Your task to perform on an android device: Clear all items from cart on walmart. Add razer naga to the cart on walmart, then select checkout. Image 0: 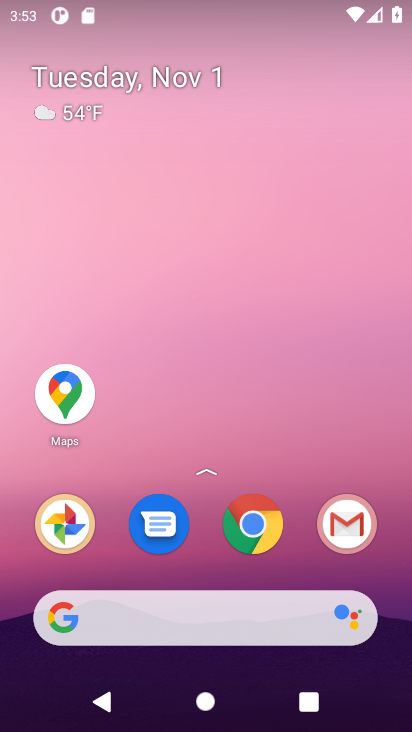
Step 0: click (254, 525)
Your task to perform on an android device: Clear all items from cart on walmart. Add razer naga to the cart on walmart, then select checkout. Image 1: 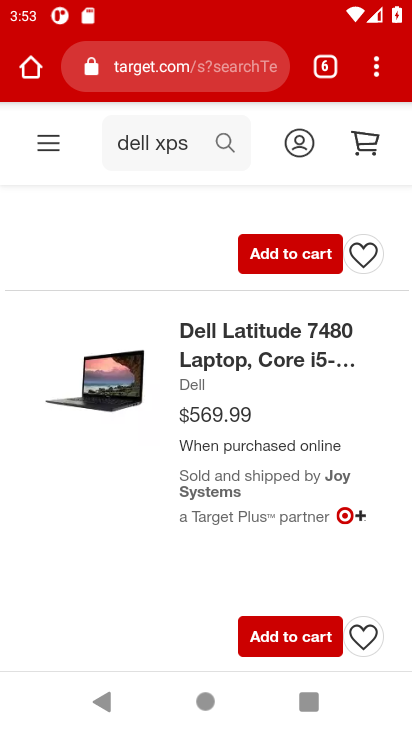
Step 1: click (228, 44)
Your task to perform on an android device: Clear all items from cart on walmart. Add razer naga to the cart on walmart, then select checkout. Image 2: 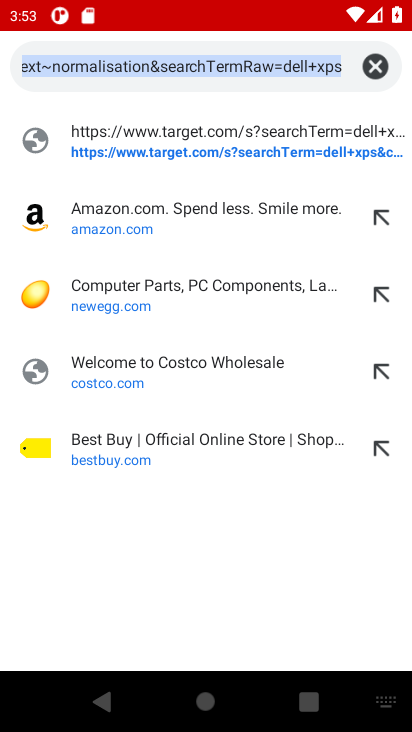
Step 2: click (372, 63)
Your task to perform on an android device: Clear all items from cart on walmart. Add razer naga to the cart on walmart, then select checkout. Image 3: 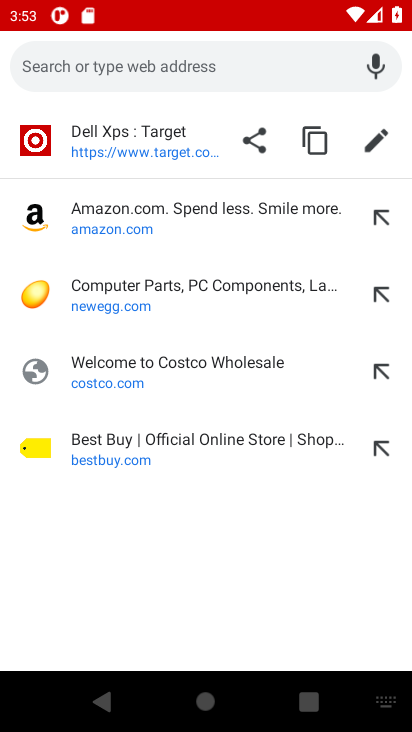
Step 3: type "walmart"
Your task to perform on an android device: Clear all items from cart on walmart. Add razer naga to the cart on walmart, then select checkout. Image 4: 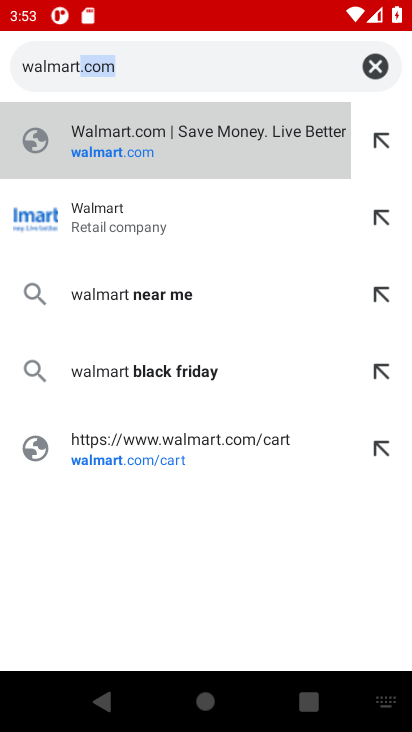
Step 4: click (94, 132)
Your task to perform on an android device: Clear all items from cart on walmart. Add razer naga to the cart on walmart, then select checkout. Image 5: 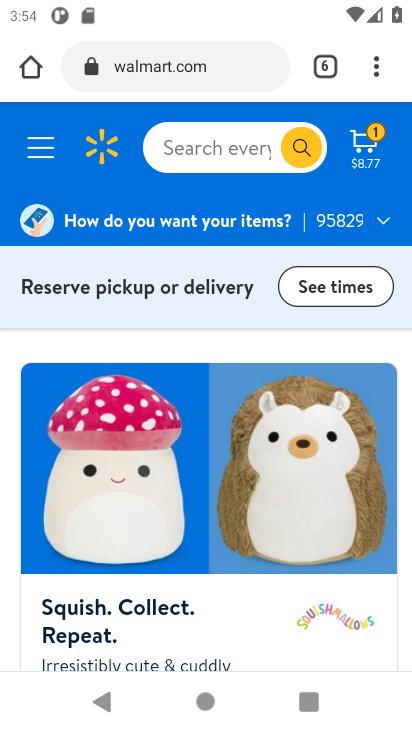
Step 5: click (365, 137)
Your task to perform on an android device: Clear all items from cart on walmart. Add razer naga to the cart on walmart, then select checkout. Image 6: 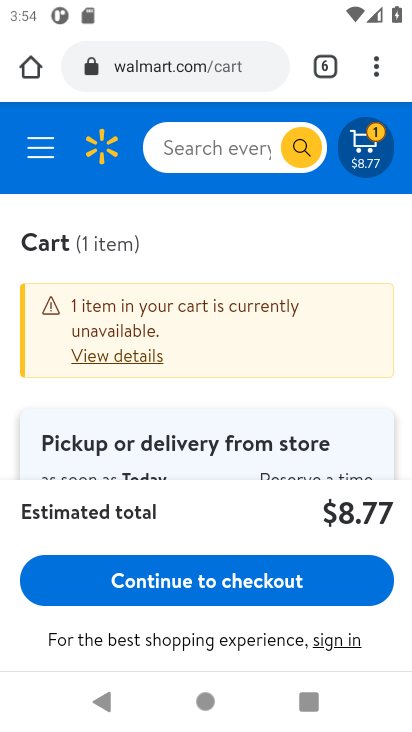
Step 6: drag from (289, 398) to (272, 112)
Your task to perform on an android device: Clear all items from cart on walmart. Add razer naga to the cart on walmart, then select checkout. Image 7: 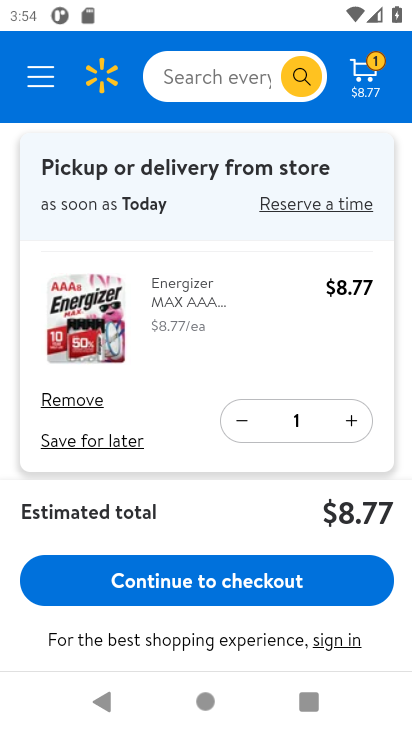
Step 7: click (54, 395)
Your task to perform on an android device: Clear all items from cart on walmart. Add razer naga to the cart on walmart, then select checkout. Image 8: 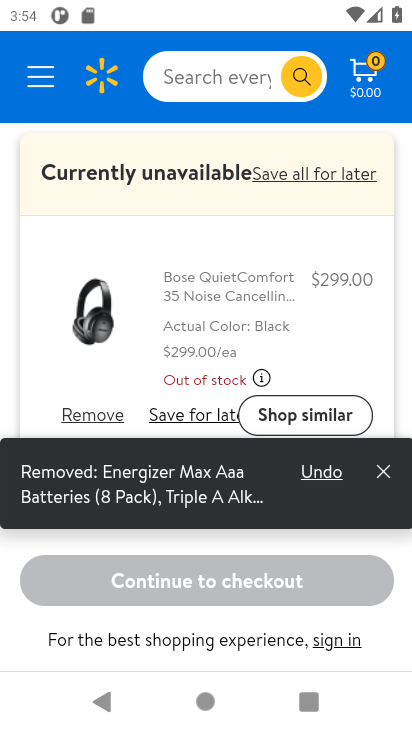
Step 8: click (87, 410)
Your task to perform on an android device: Clear all items from cart on walmart. Add razer naga to the cart on walmart, then select checkout. Image 9: 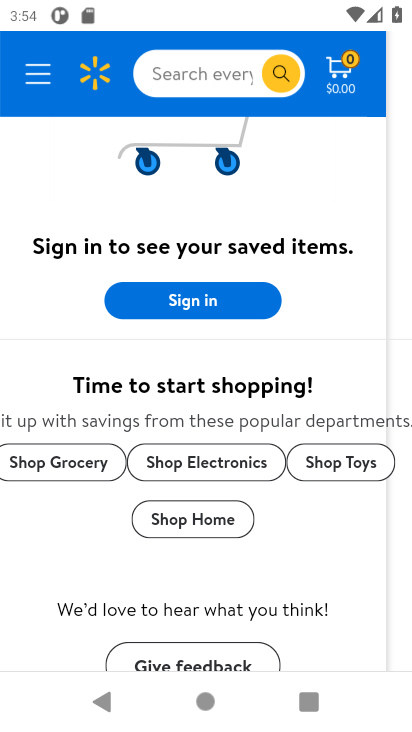
Step 9: click (181, 70)
Your task to perform on an android device: Clear all items from cart on walmart. Add razer naga to the cart on walmart, then select checkout. Image 10: 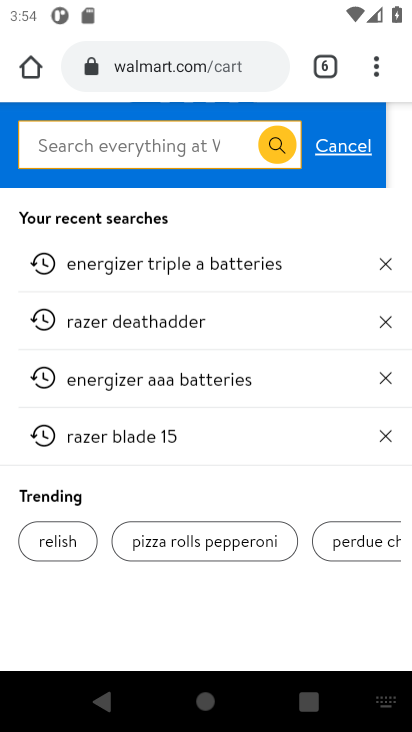
Step 10: type "razer naga"
Your task to perform on an android device: Clear all items from cart on walmart. Add razer naga to the cart on walmart, then select checkout. Image 11: 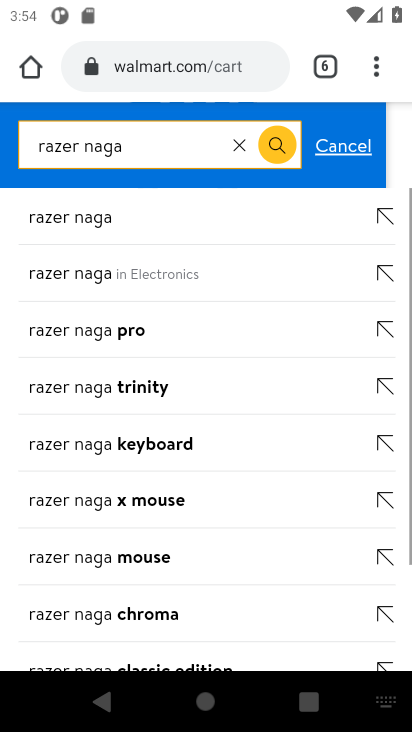
Step 11: click (58, 215)
Your task to perform on an android device: Clear all items from cart on walmart. Add razer naga to the cart on walmart, then select checkout. Image 12: 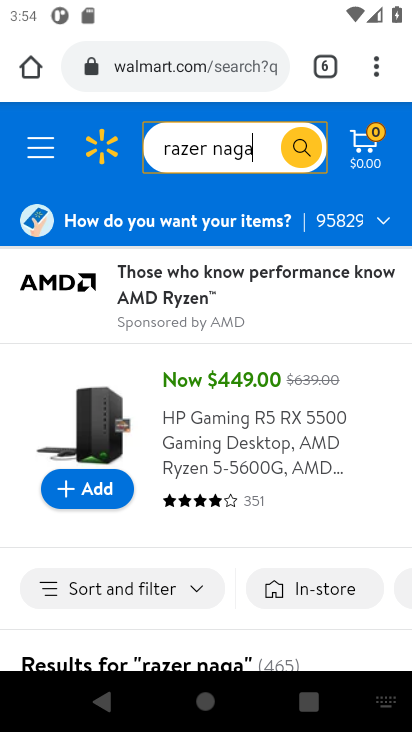
Step 12: drag from (235, 622) to (226, 301)
Your task to perform on an android device: Clear all items from cart on walmart. Add razer naga to the cart on walmart, then select checkout. Image 13: 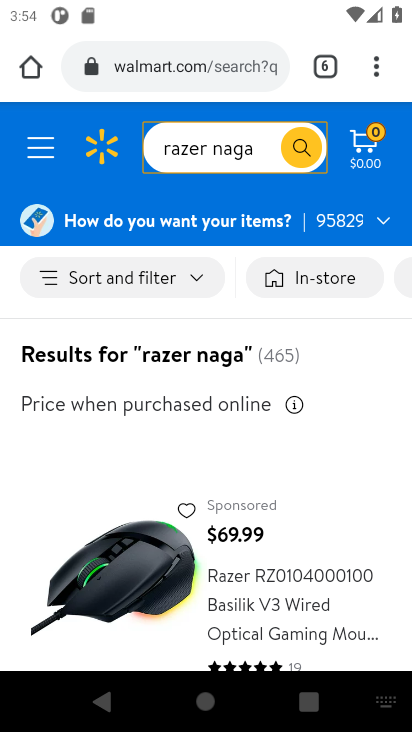
Step 13: drag from (219, 575) to (211, 271)
Your task to perform on an android device: Clear all items from cart on walmart. Add razer naga to the cart on walmart, then select checkout. Image 14: 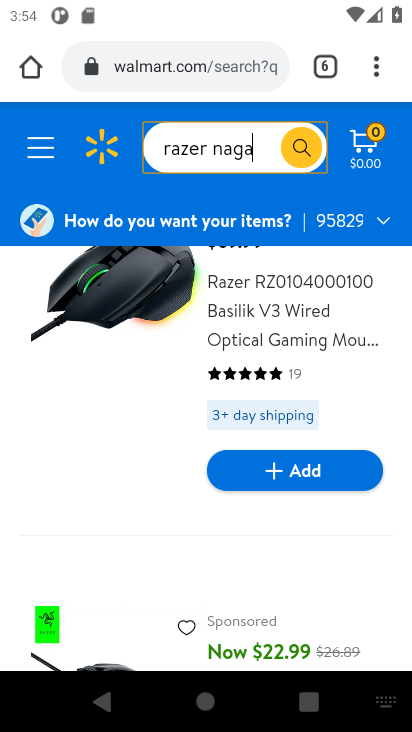
Step 14: drag from (209, 609) to (187, 284)
Your task to perform on an android device: Clear all items from cart on walmart. Add razer naga to the cart on walmart, then select checkout. Image 15: 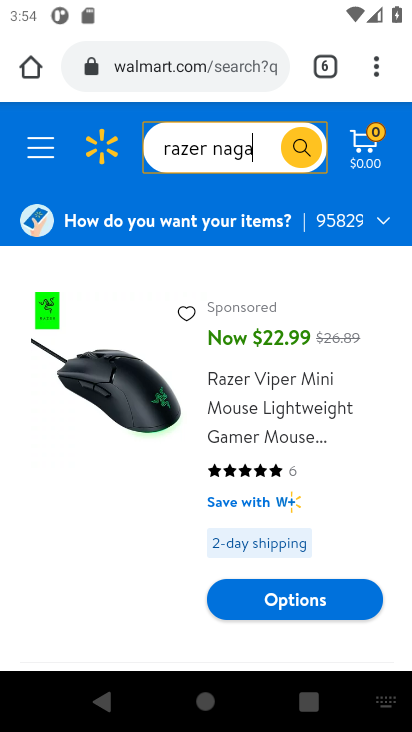
Step 15: drag from (189, 582) to (188, 313)
Your task to perform on an android device: Clear all items from cart on walmart. Add razer naga to the cart on walmart, then select checkout. Image 16: 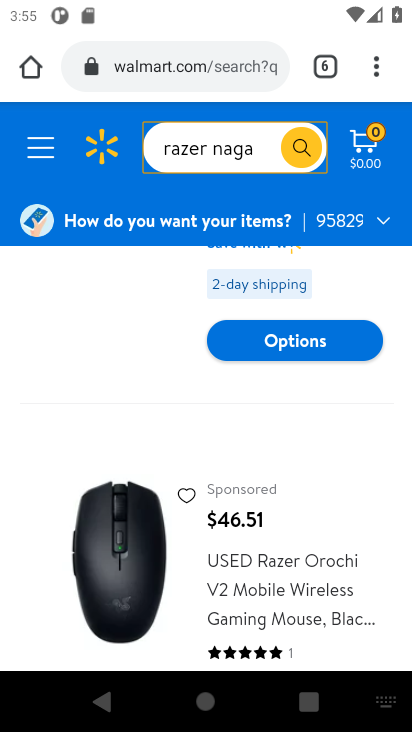
Step 16: drag from (202, 598) to (195, 292)
Your task to perform on an android device: Clear all items from cart on walmart. Add razer naga to the cart on walmart, then select checkout. Image 17: 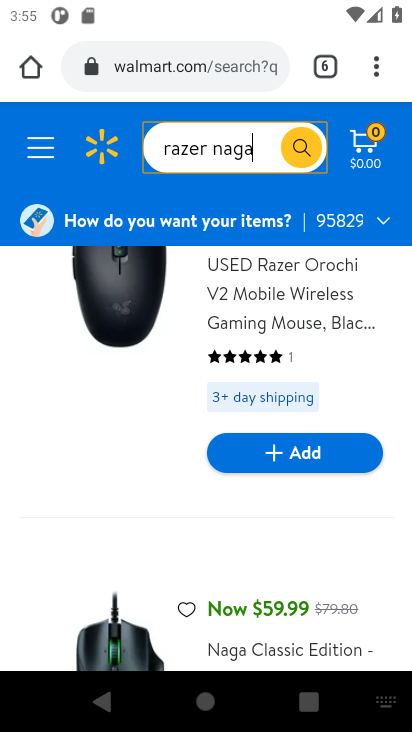
Step 17: drag from (189, 605) to (190, 251)
Your task to perform on an android device: Clear all items from cart on walmart. Add razer naga to the cart on walmart, then select checkout. Image 18: 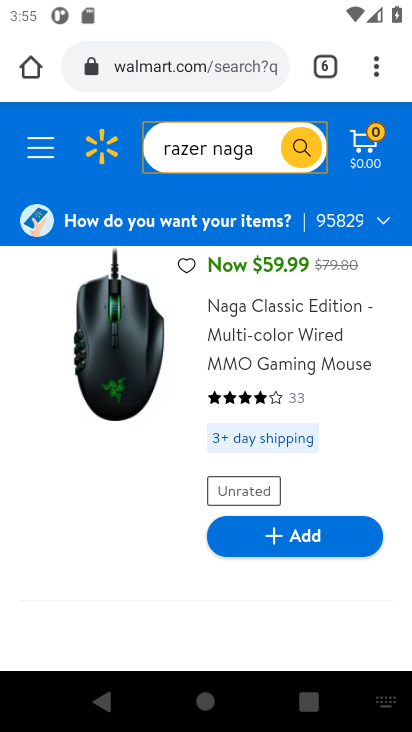
Step 18: drag from (195, 611) to (189, 265)
Your task to perform on an android device: Clear all items from cart on walmart. Add razer naga to the cart on walmart, then select checkout. Image 19: 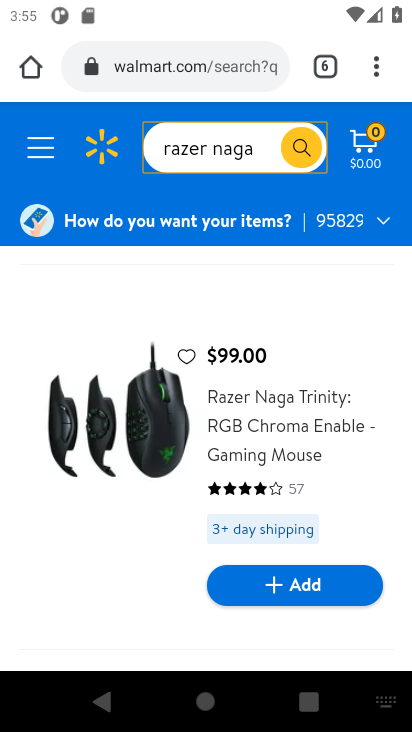
Step 19: click (273, 588)
Your task to perform on an android device: Clear all items from cart on walmart. Add razer naga to the cart on walmart, then select checkout. Image 20: 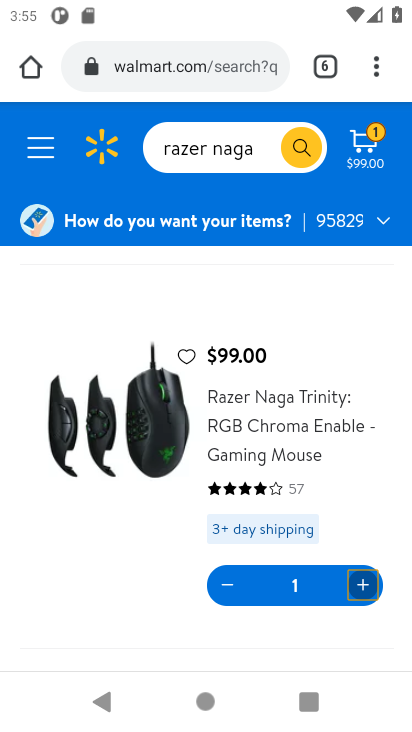
Step 20: click (363, 140)
Your task to perform on an android device: Clear all items from cart on walmart. Add razer naga to the cart on walmart, then select checkout. Image 21: 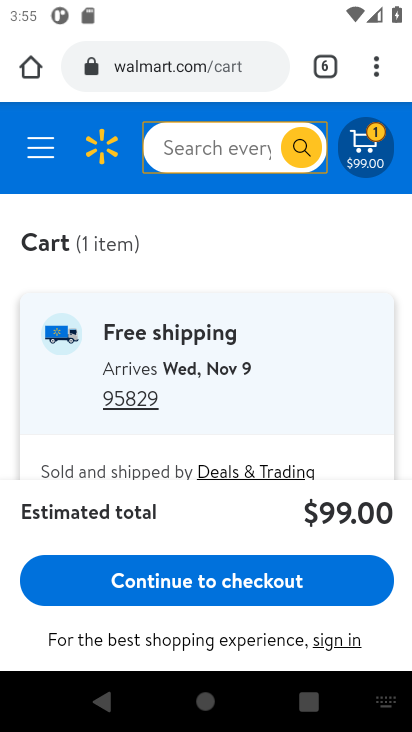
Step 21: click (232, 582)
Your task to perform on an android device: Clear all items from cart on walmart. Add razer naga to the cart on walmart, then select checkout. Image 22: 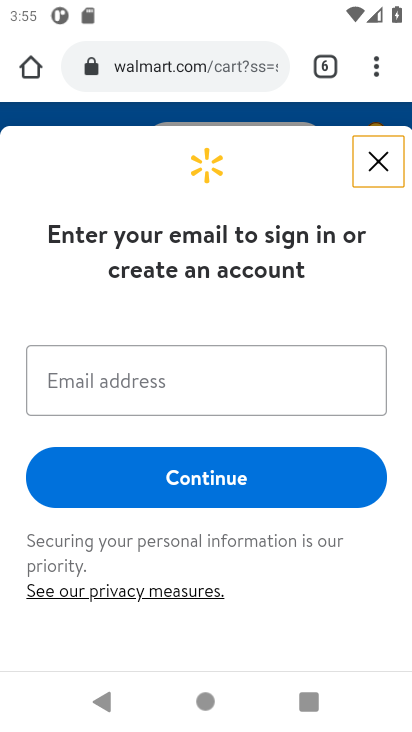
Step 22: task complete